Your task to perform on an android device: What's the weather today? Image 0: 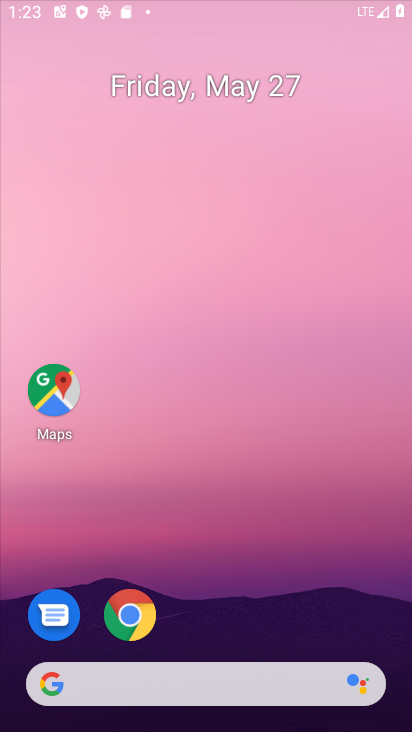
Step 0: drag from (332, 684) to (353, 32)
Your task to perform on an android device: What's the weather today? Image 1: 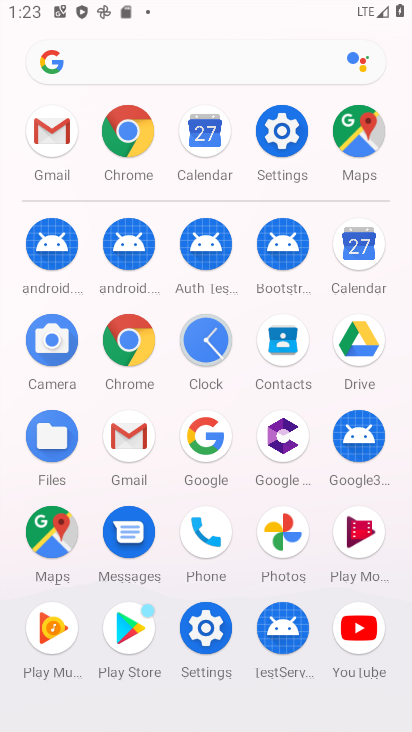
Step 1: press home button
Your task to perform on an android device: What's the weather today? Image 2: 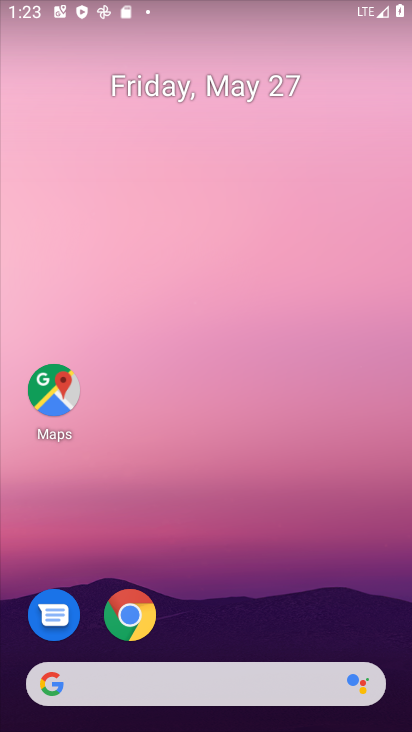
Step 2: drag from (49, 275) to (200, 428)
Your task to perform on an android device: What's the weather today? Image 3: 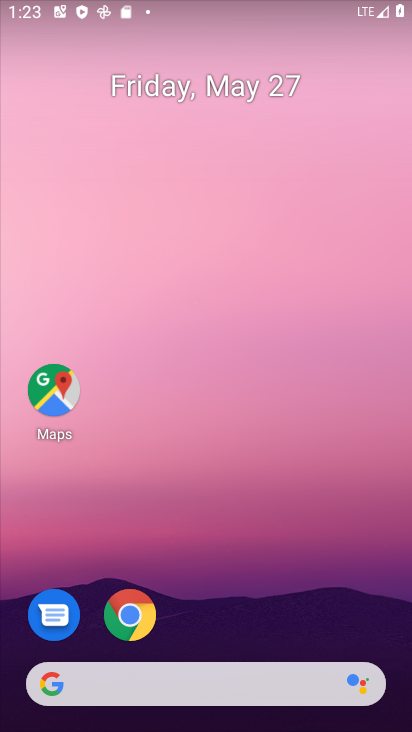
Step 3: drag from (26, 194) to (379, 247)
Your task to perform on an android device: What's the weather today? Image 4: 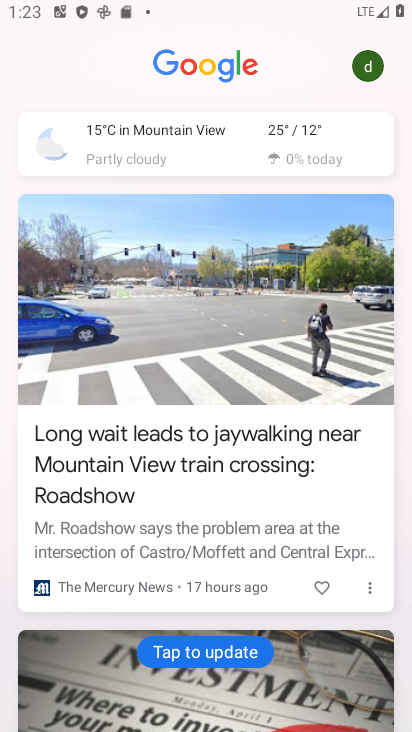
Step 4: click (260, 133)
Your task to perform on an android device: What's the weather today? Image 5: 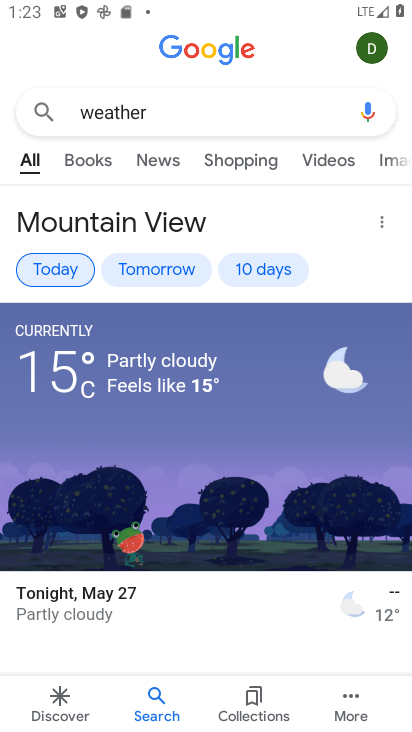
Step 5: task complete